Your task to perform on an android device: turn on airplane mode Image 0: 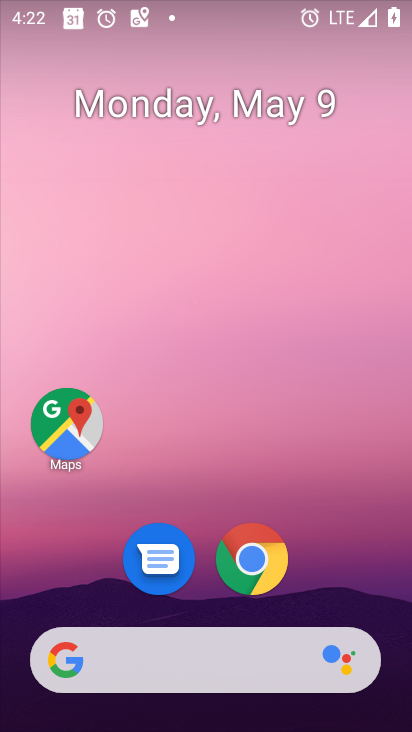
Step 0: drag from (211, 727) to (218, 148)
Your task to perform on an android device: turn on airplane mode Image 1: 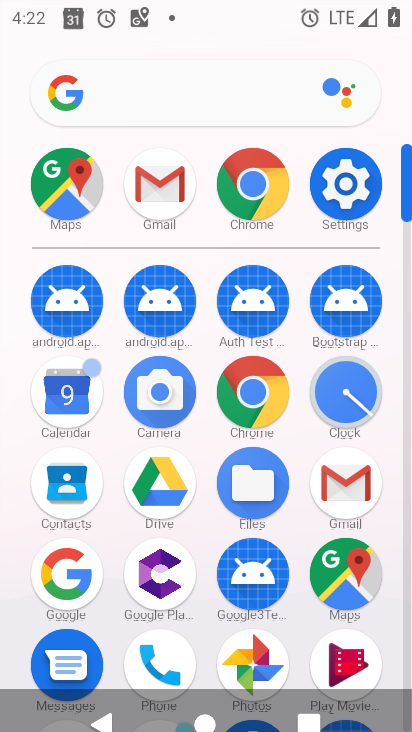
Step 1: click (348, 186)
Your task to perform on an android device: turn on airplane mode Image 2: 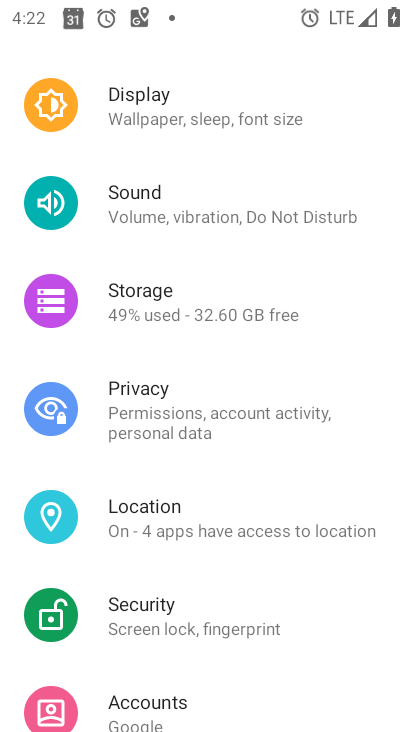
Step 2: drag from (221, 142) to (230, 463)
Your task to perform on an android device: turn on airplane mode Image 3: 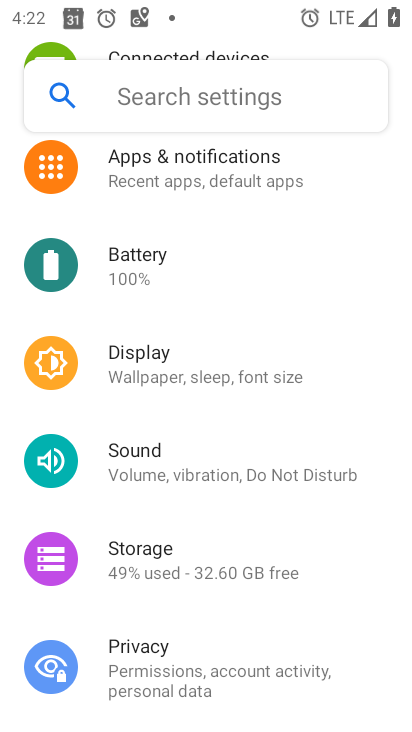
Step 3: drag from (325, 159) to (336, 451)
Your task to perform on an android device: turn on airplane mode Image 4: 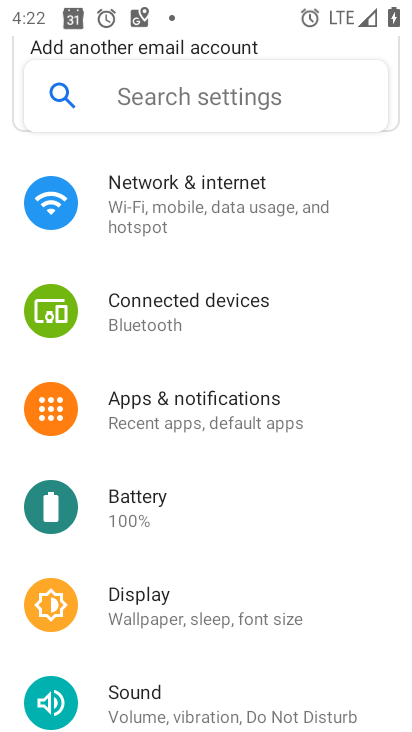
Step 4: drag from (311, 151) to (308, 418)
Your task to perform on an android device: turn on airplane mode Image 5: 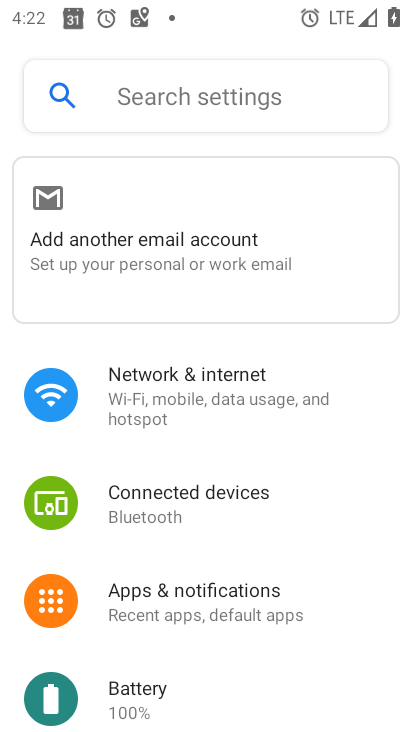
Step 5: click (174, 377)
Your task to perform on an android device: turn on airplane mode Image 6: 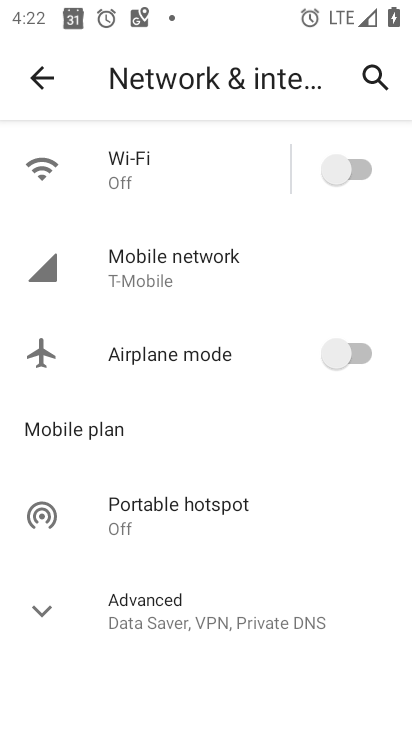
Step 6: click (359, 354)
Your task to perform on an android device: turn on airplane mode Image 7: 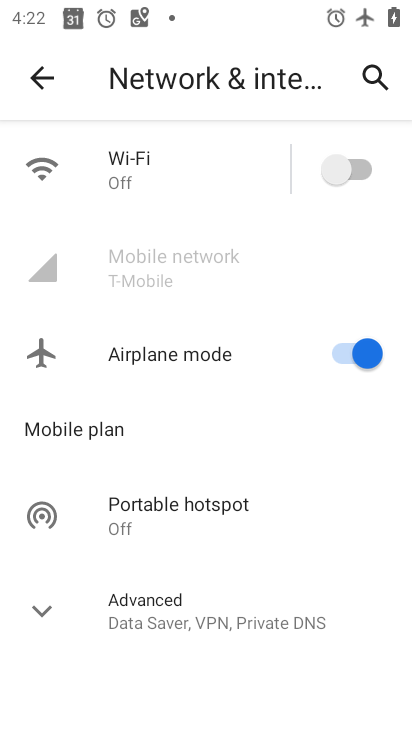
Step 7: task complete